Your task to perform on an android device: turn on airplane mode Image 0: 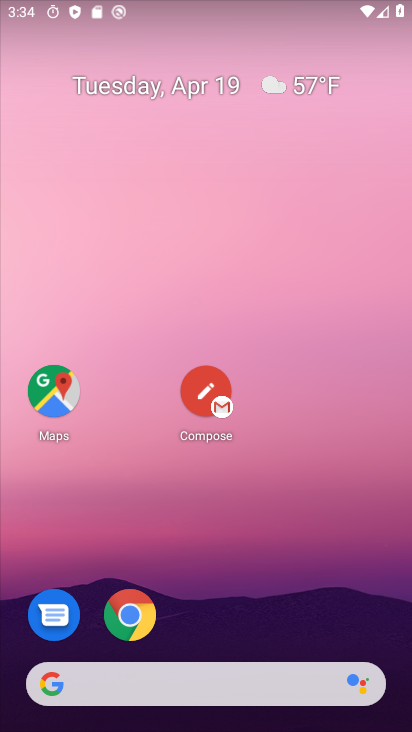
Step 0: drag from (294, 631) to (296, 2)
Your task to perform on an android device: turn on airplane mode Image 1: 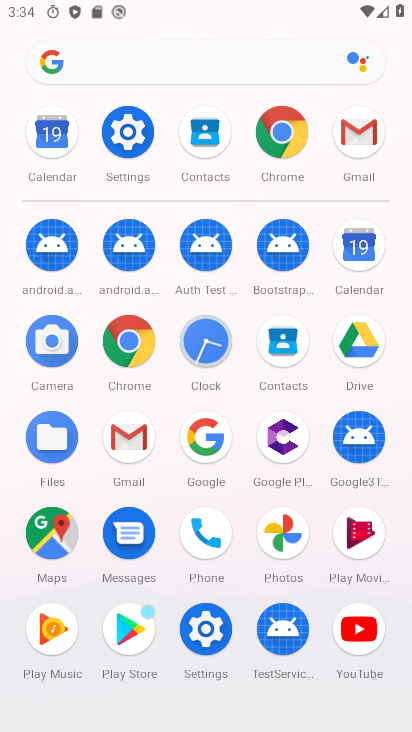
Step 1: click (197, 638)
Your task to perform on an android device: turn on airplane mode Image 2: 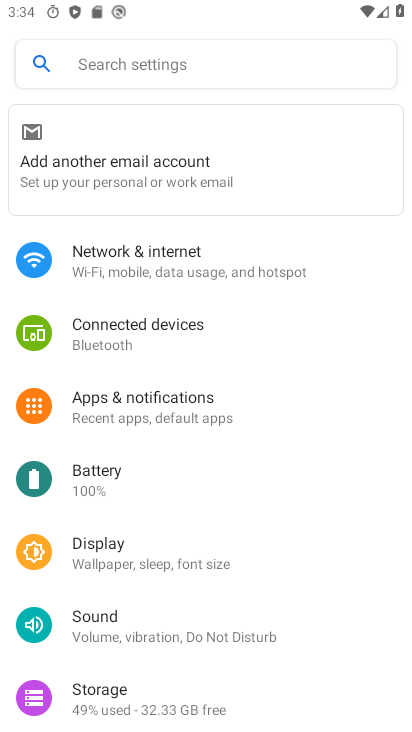
Step 2: drag from (289, 694) to (289, 196)
Your task to perform on an android device: turn on airplane mode Image 3: 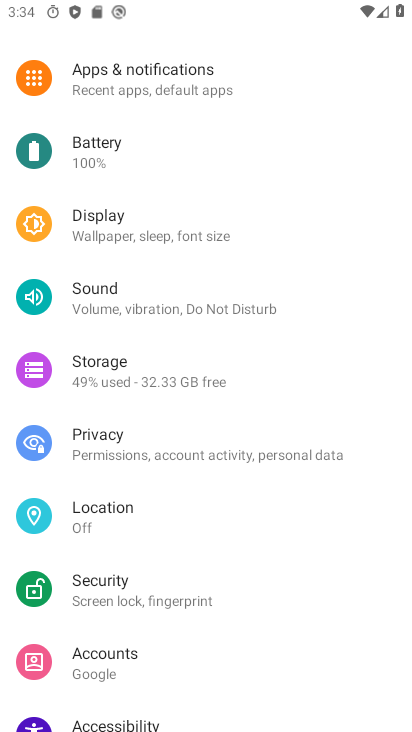
Step 3: drag from (237, 297) to (234, 711)
Your task to perform on an android device: turn on airplane mode Image 4: 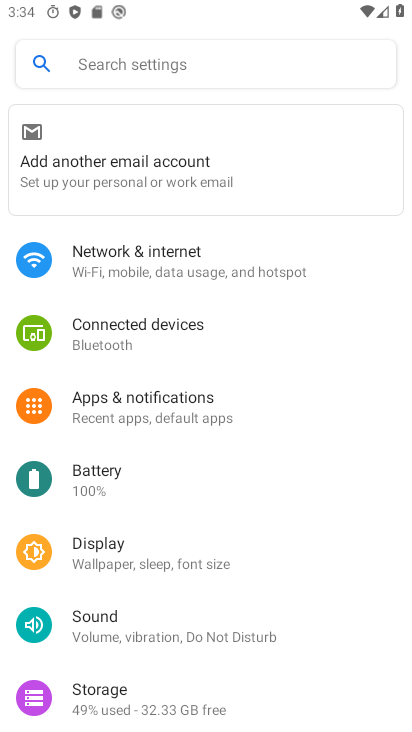
Step 4: click (242, 265)
Your task to perform on an android device: turn on airplane mode Image 5: 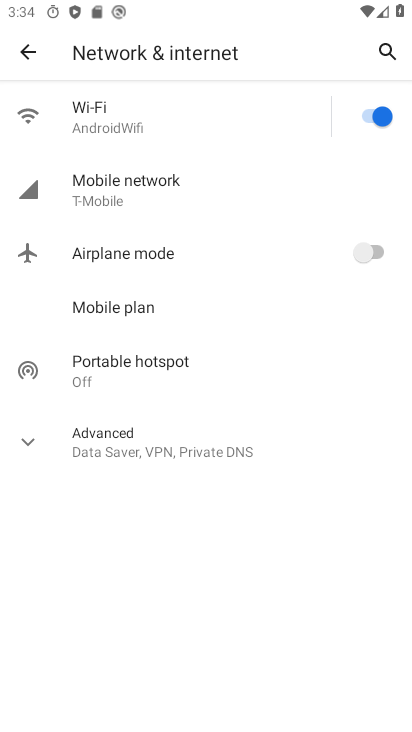
Step 5: click (183, 253)
Your task to perform on an android device: turn on airplane mode Image 6: 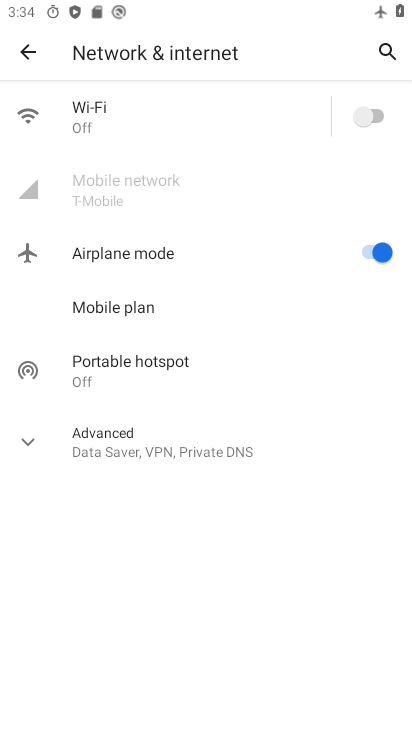
Step 6: task complete